Your task to perform on an android device: Go to Reddit.com Image 0: 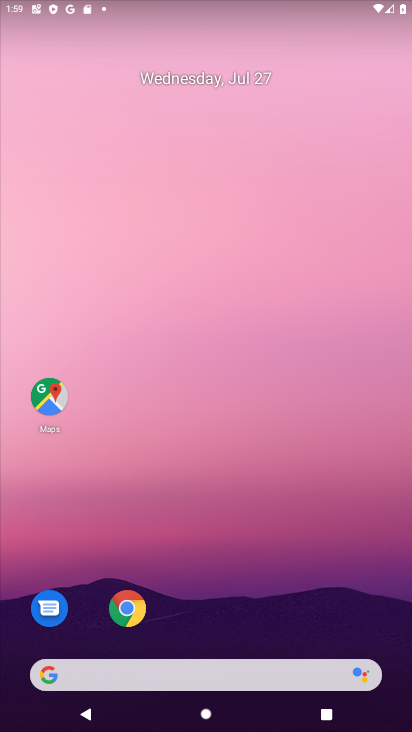
Step 0: drag from (69, 340) to (45, 461)
Your task to perform on an android device: Go to Reddit.com Image 1: 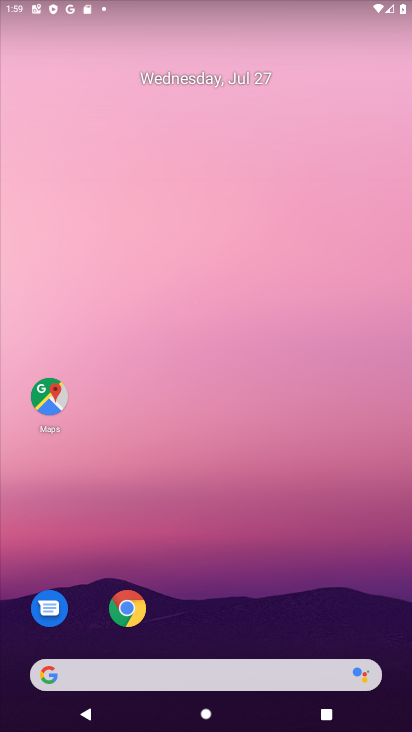
Step 1: click (173, 671)
Your task to perform on an android device: Go to Reddit.com Image 2: 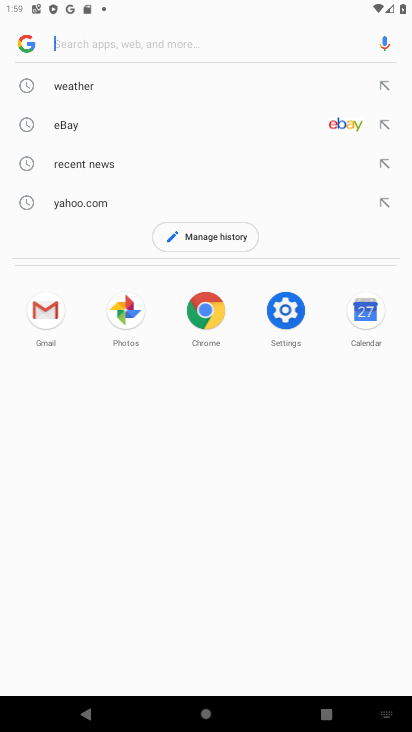
Step 2: type "Reddit.com"
Your task to perform on an android device: Go to Reddit.com Image 3: 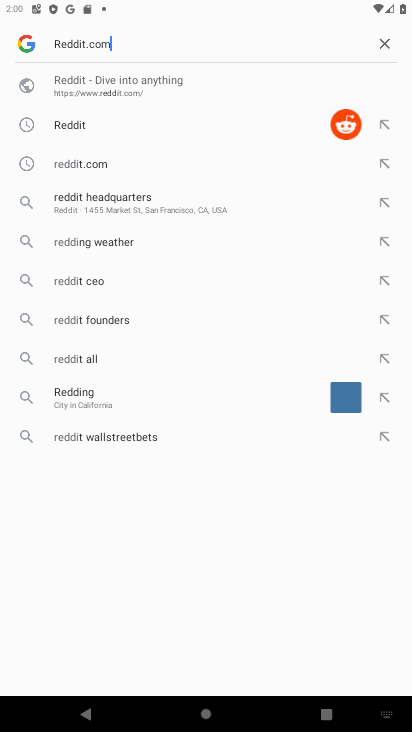
Step 3: type ""
Your task to perform on an android device: Go to Reddit.com Image 4: 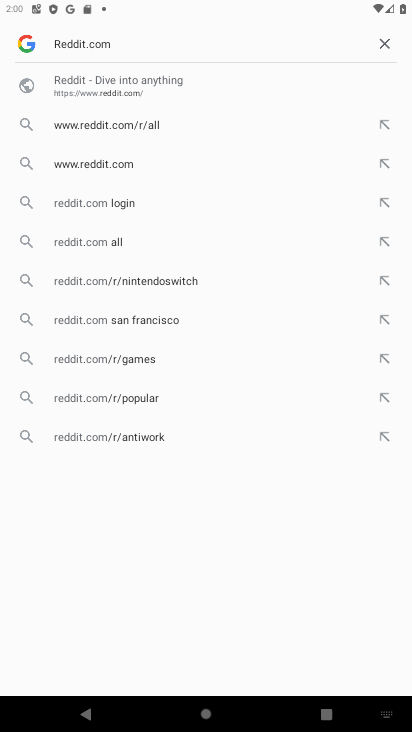
Step 4: task complete